Your task to perform on an android device: Open internet settings Image 0: 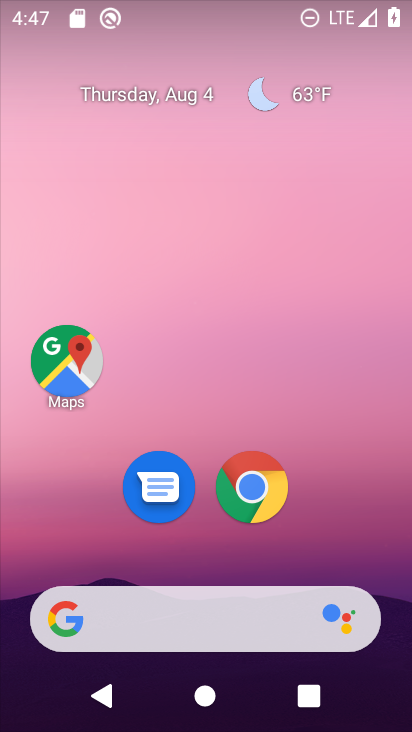
Step 0: click (269, 100)
Your task to perform on an android device: Open internet settings Image 1: 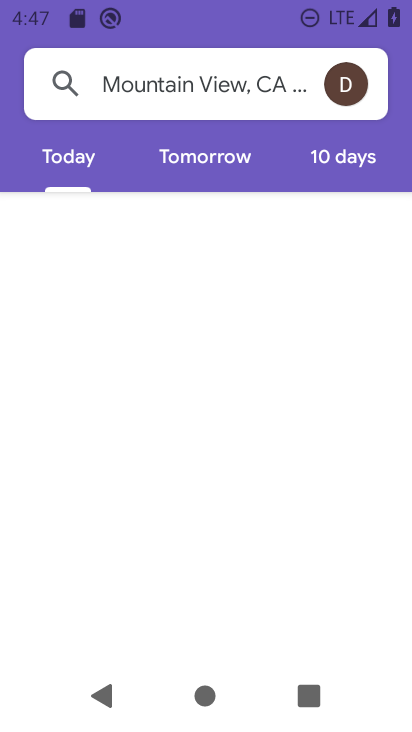
Step 1: press back button
Your task to perform on an android device: Open internet settings Image 2: 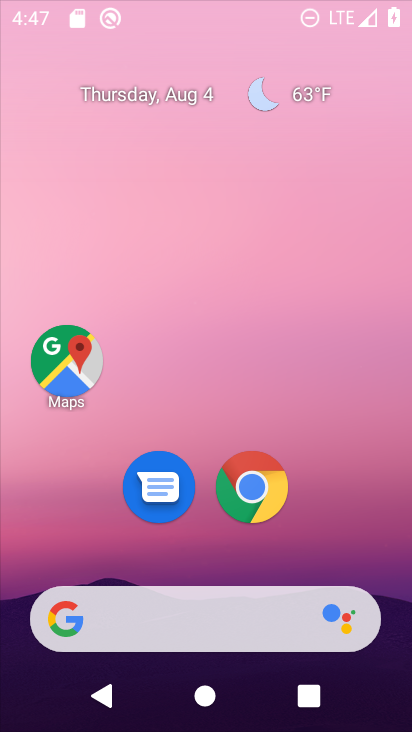
Step 2: press back button
Your task to perform on an android device: Open internet settings Image 3: 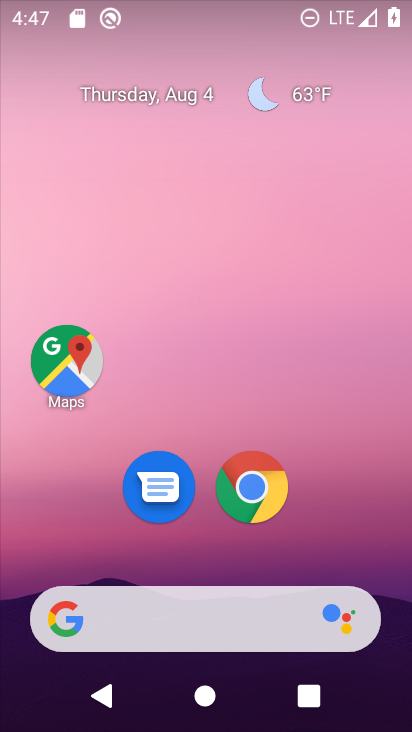
Step 3: drag from (49, 571) to (204, 20)
Your task to perform on an android device: Open internet settings Image 4: 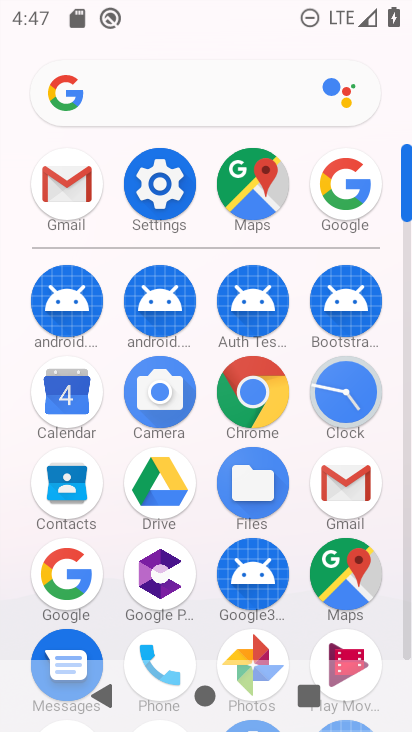
Step 4: click (177, 189)
Your task to perform on an android device: Open internet settings Image 5: 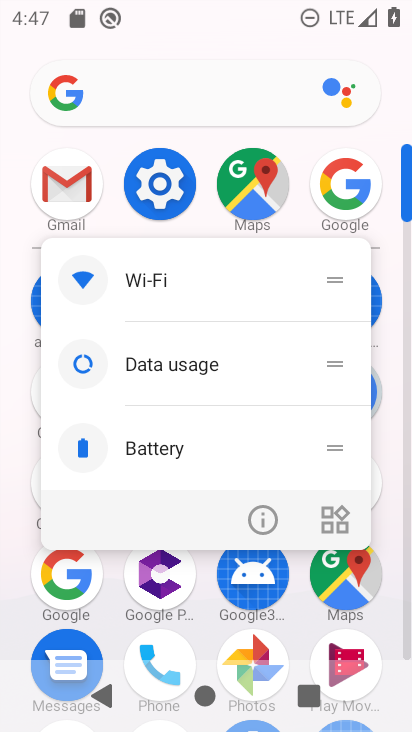
Step 5: click (157, 173)
Your task to perform on an android device: Open internet settings Image 6: 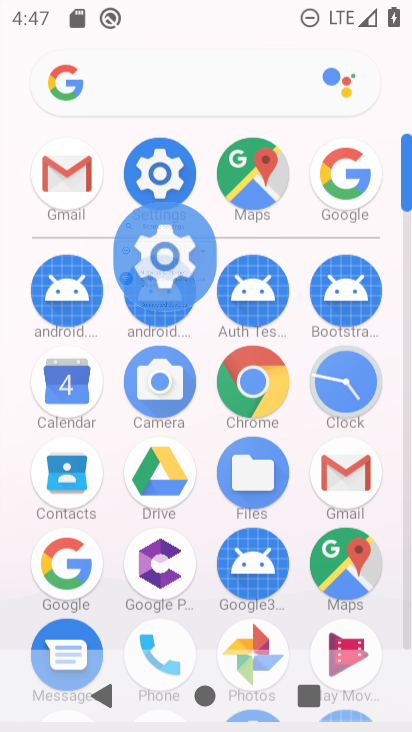
Step 6: click (162, 190)
Your task to perform on an android device: Open internet settings Image 7: 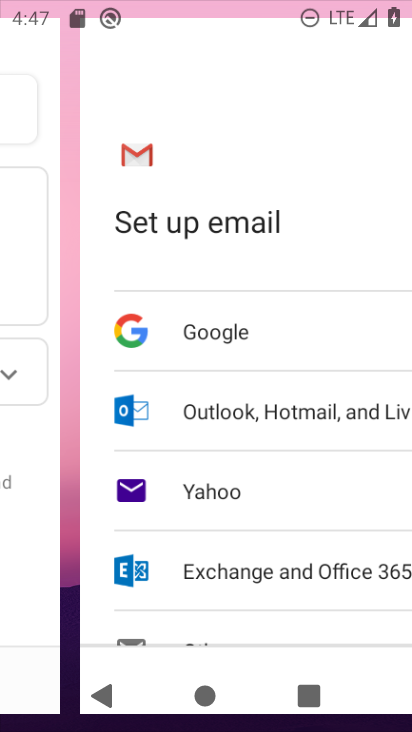
Step 7: click (157, 485)
Your task to perform on an android device: Open internet settings Image 8: 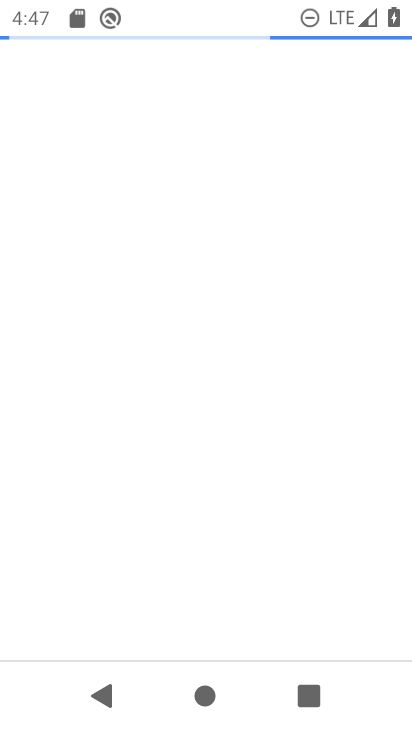
Step 8: press back button
Your task to perform on an android device: Open internet settings Image 9: 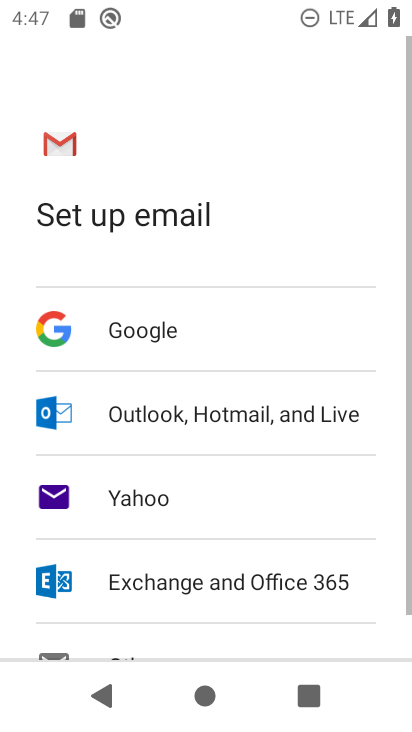
Step 9: press back button
Your task to perform on an android device: Open internet settings Image 10: 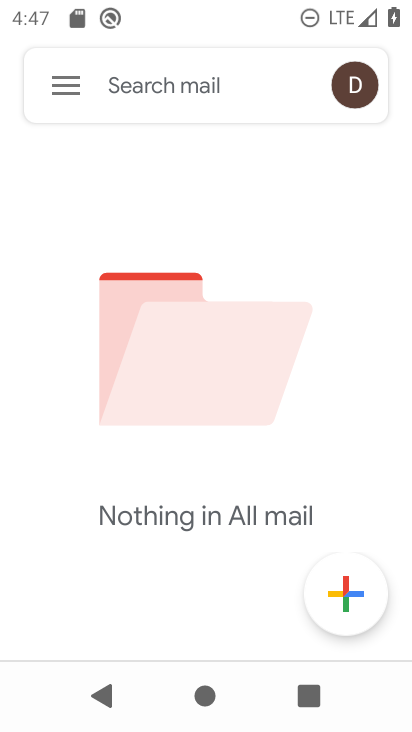
Step 10: press back button
Your task to perform on an android device: Open internet settings Image 11: 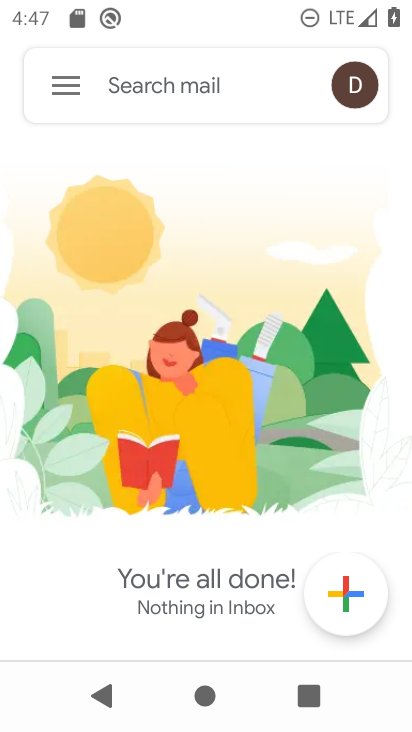
Step 11: press back button
Your task to perform on an android device: Open internet settings Image 12: 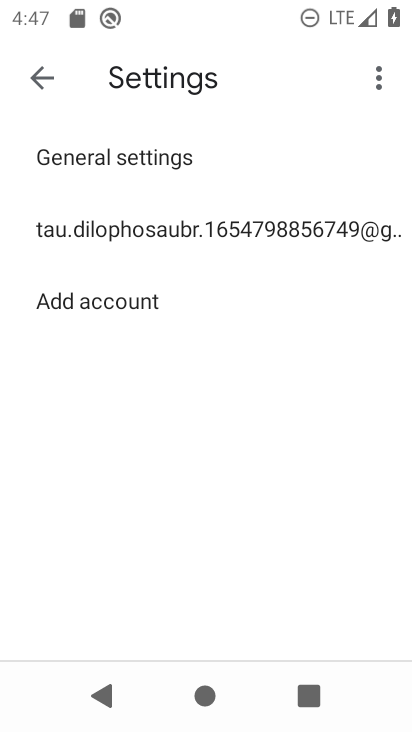
Step 12: press back button
Your task to perform on an android device: Open internet settings Image 13: 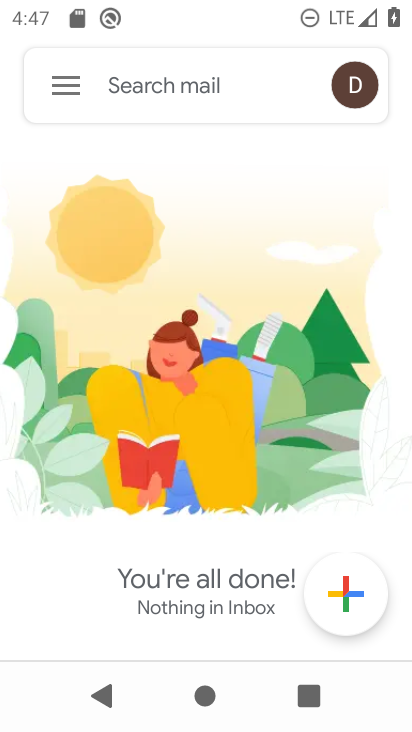
Step 13: press back button
Your task to perform on an android device: Open internet settings Image 14: 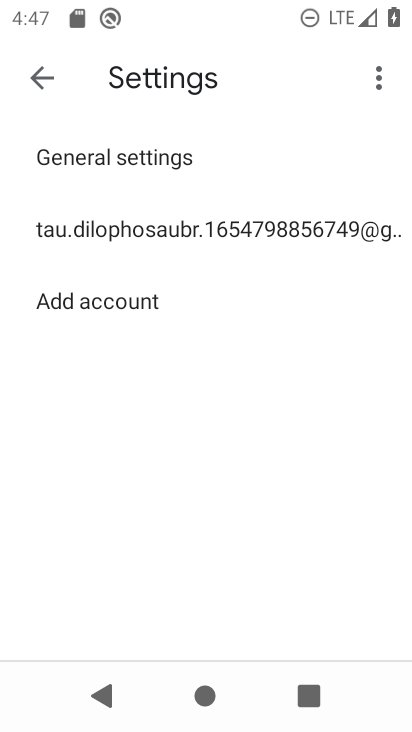
Step 14: press back button
Your task to perform on an android device: Open internet settings Image 15: 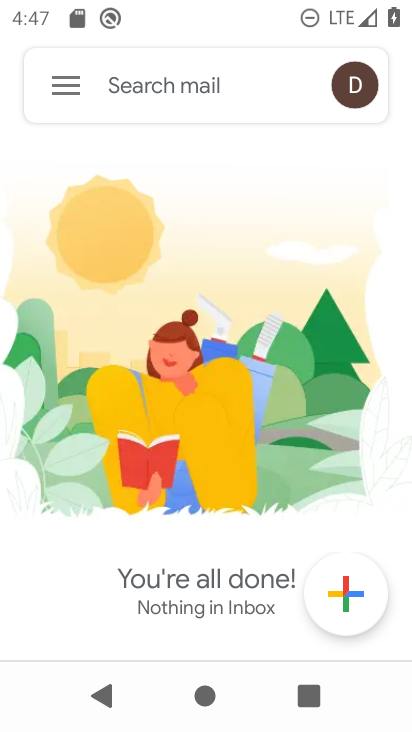
Step 15: press home button
Your task to perform on an android device: Open internet settings Image 16: 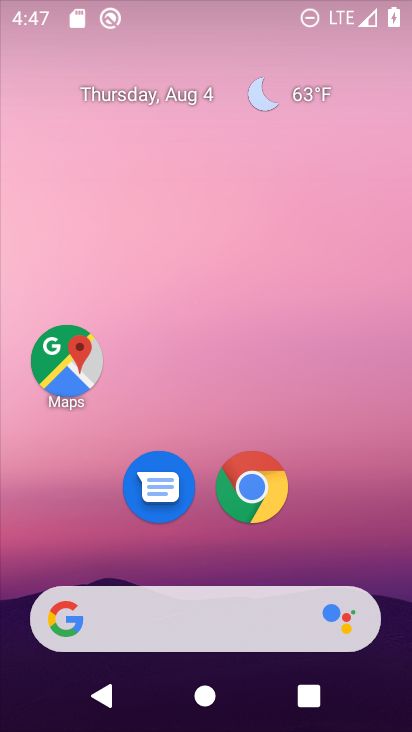
Step 16: drag from (40, 553) to (155, 135)
Your task to perform on an android device: Open internet settings Image 17: 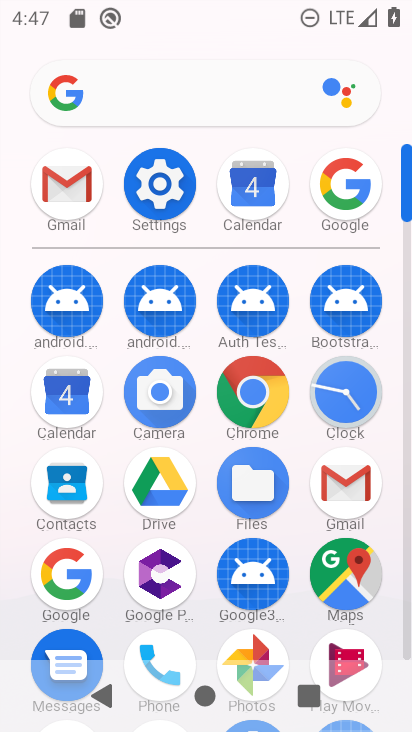
Step 17: click (185, 179)
Your task to perform on an android device: Open internet settings Image 18: 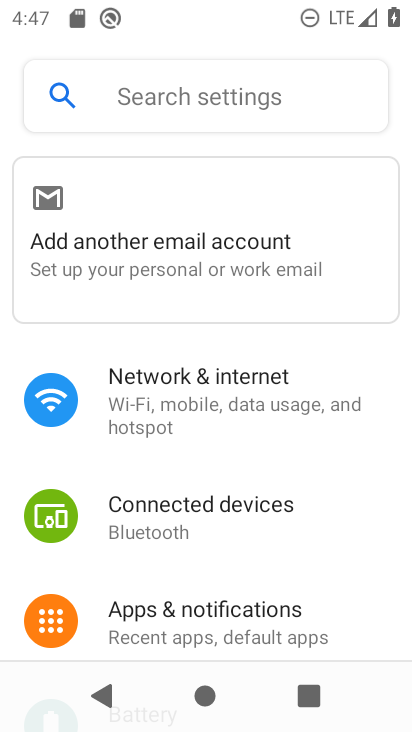
Step 18: click (216, 383)
Your task to perform on an android device: Open internet settings Image 19: 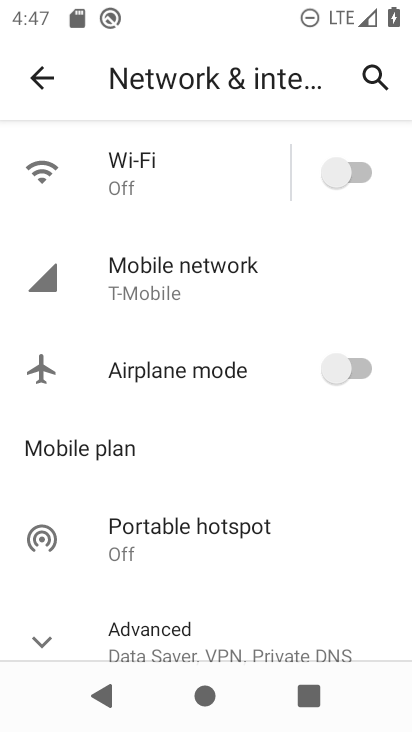
Step 19: task complete